Your task to perform on an android device: show emergency info Image 0: 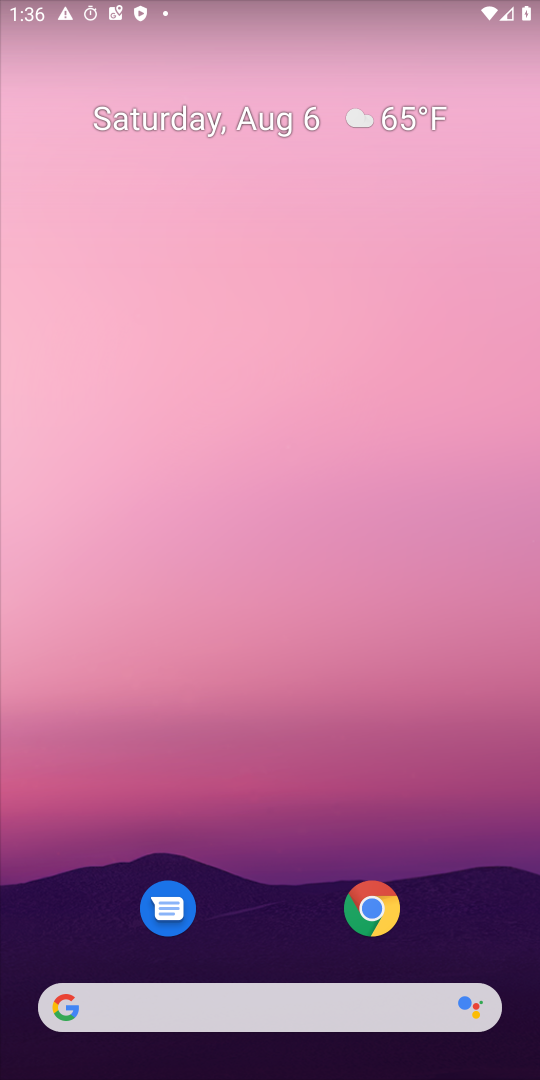
Step 0: drag from (293, 882) to (293, 190)
Your task to perform on an android device: show emergency info Image 1: 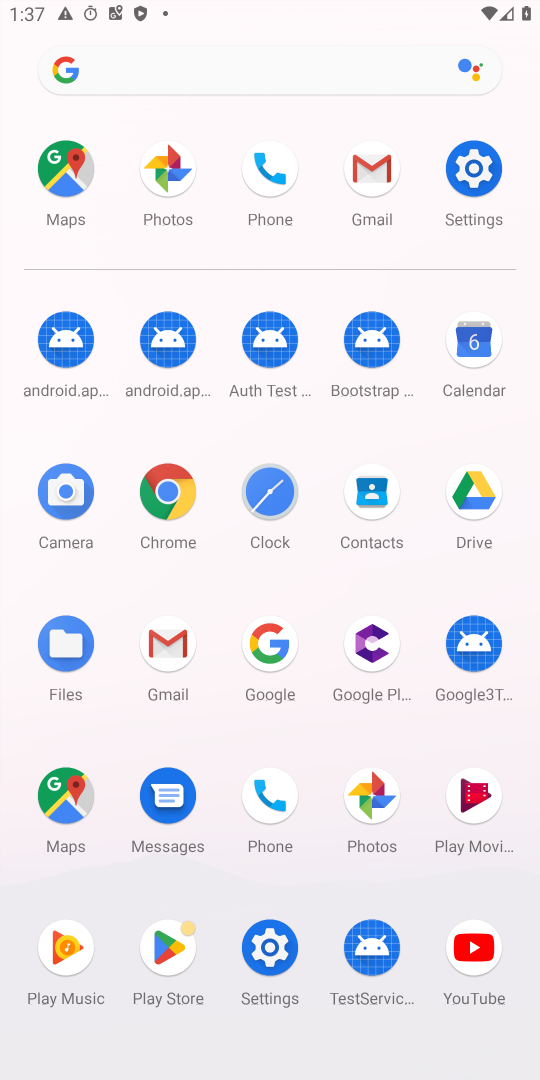
Step 1: click (271, 944)
Your task to perform on an android device: show emergency info Image 2: 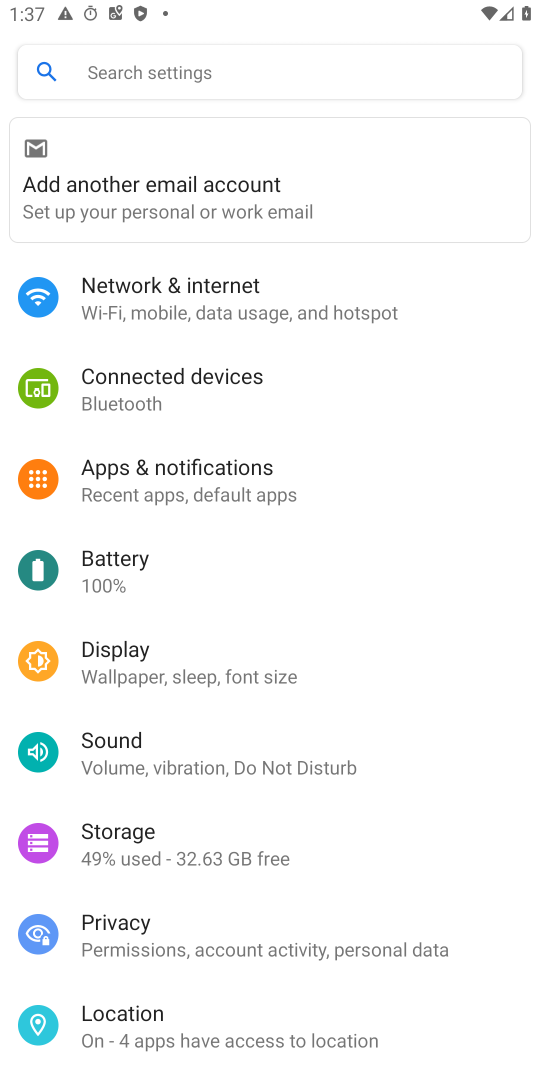
Step 2: drag from (212, 997) to (197, 226)
Your task to perform on an android device: show emergency info Image 3: 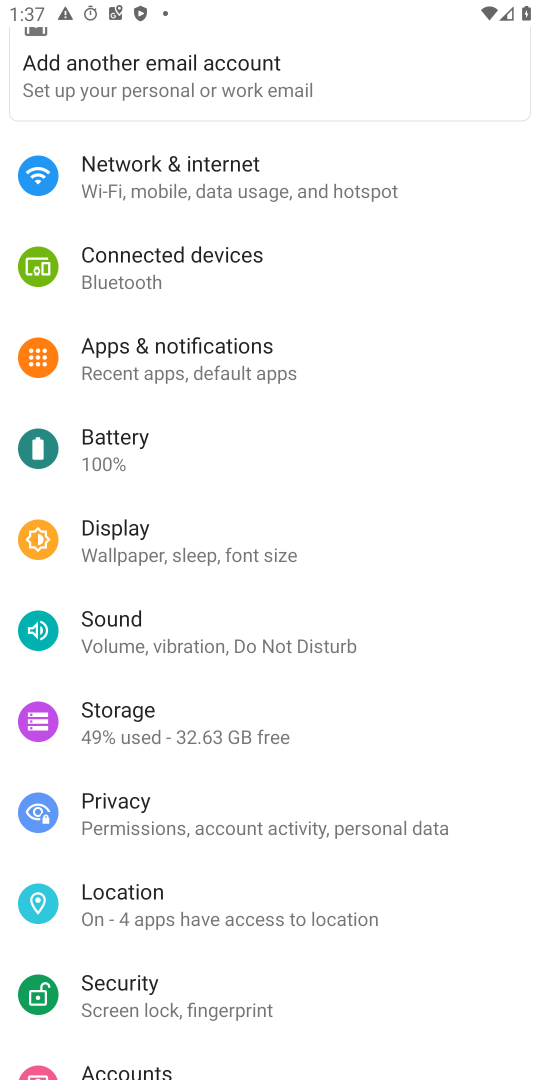
Step 3: drag from (129, 694) to (82, 125)
Your task to perform on an android device: show emergency info Image 4: 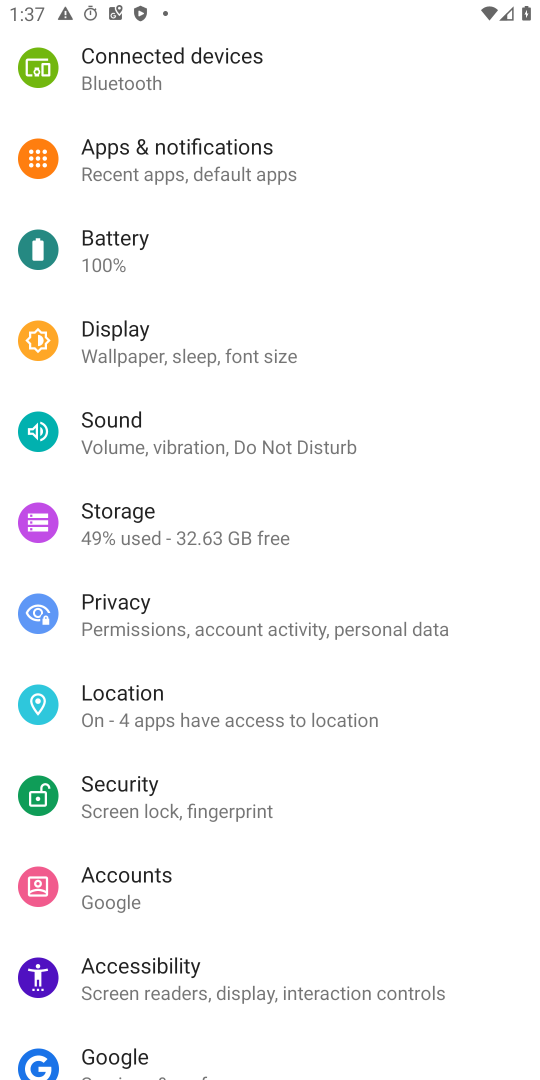
Step 4: drag from (122, 830) to (118, 236)
Your task to perform on an android device: show emergency info Image 5: 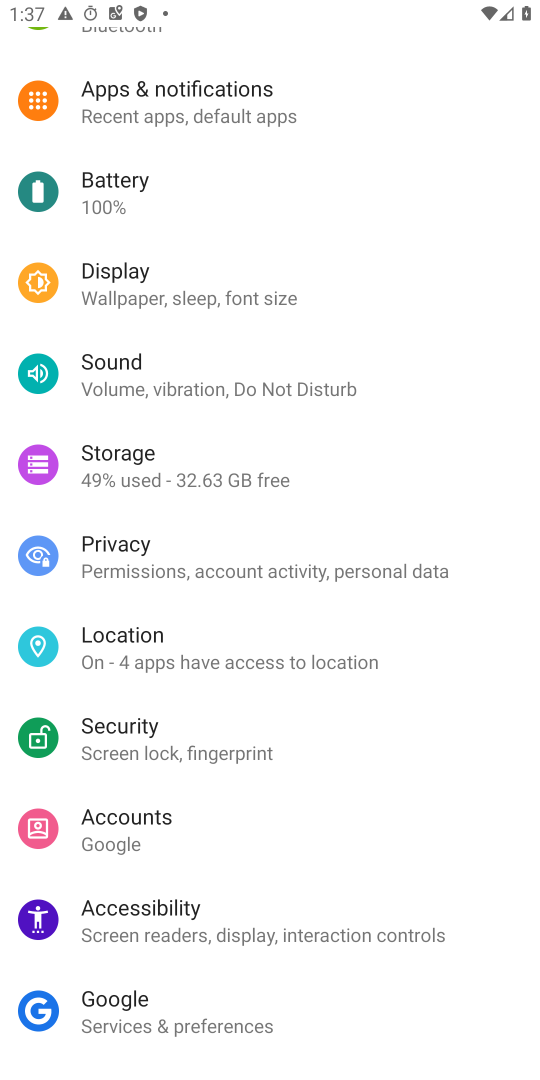
Step 5: drag from (163, 1016) to (152, 486)
Your task to perform on an android device: show emergency info Image 6: 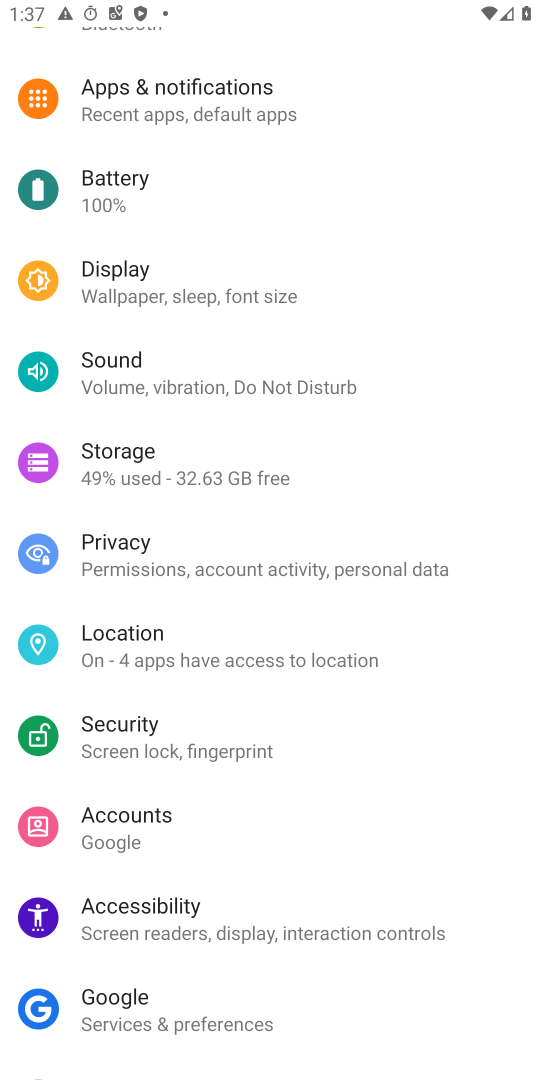
Step 6: drag from (165, 860) to (162, 487)
Your task to perform on an android device: show emergency info Image 7: 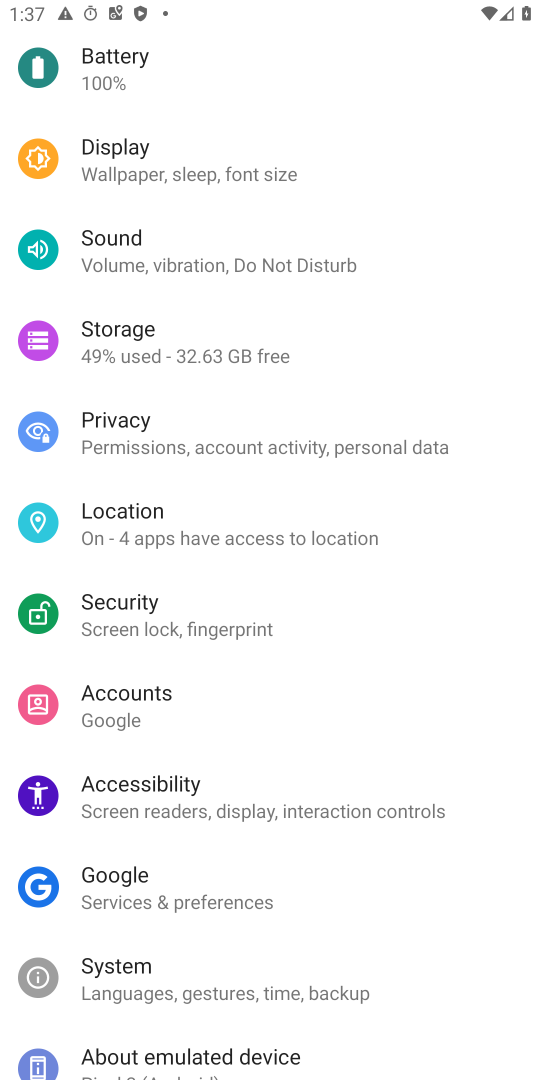
Step 7: click (161, 1063)
Your task to perform on an android device: show emergency info Image 8: 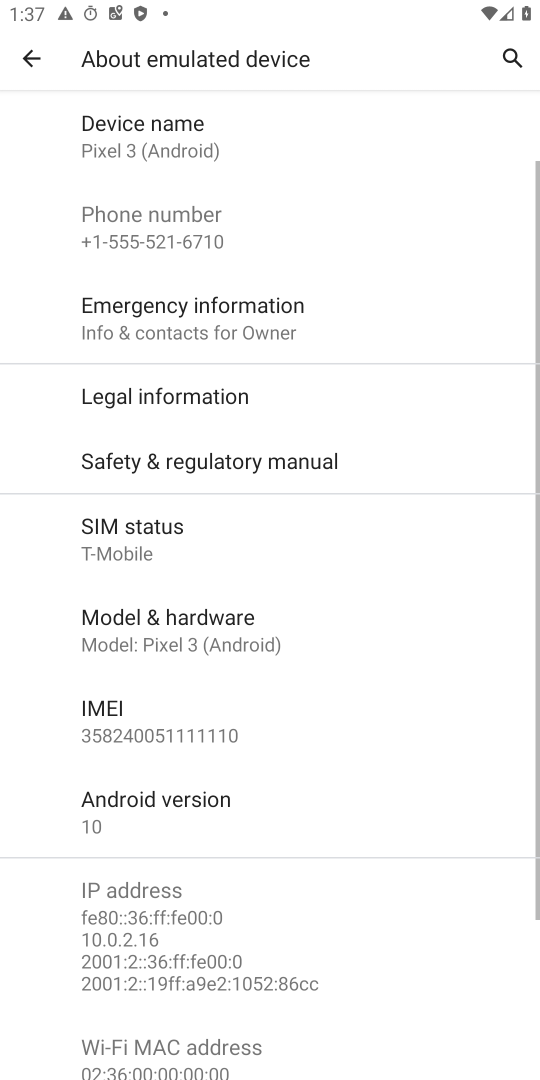
Step 8: click (194, 320)
Your task to perform on an android device: show emergency info Image 9: 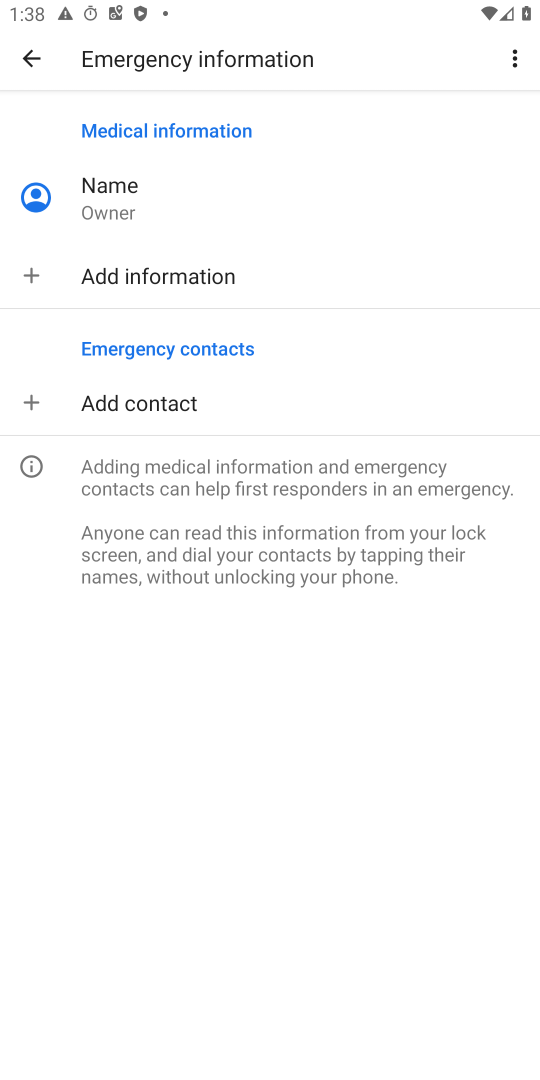
Step 9: task complete